Your task to perform on an android device: toggle pop-ups in chrome Image 0: 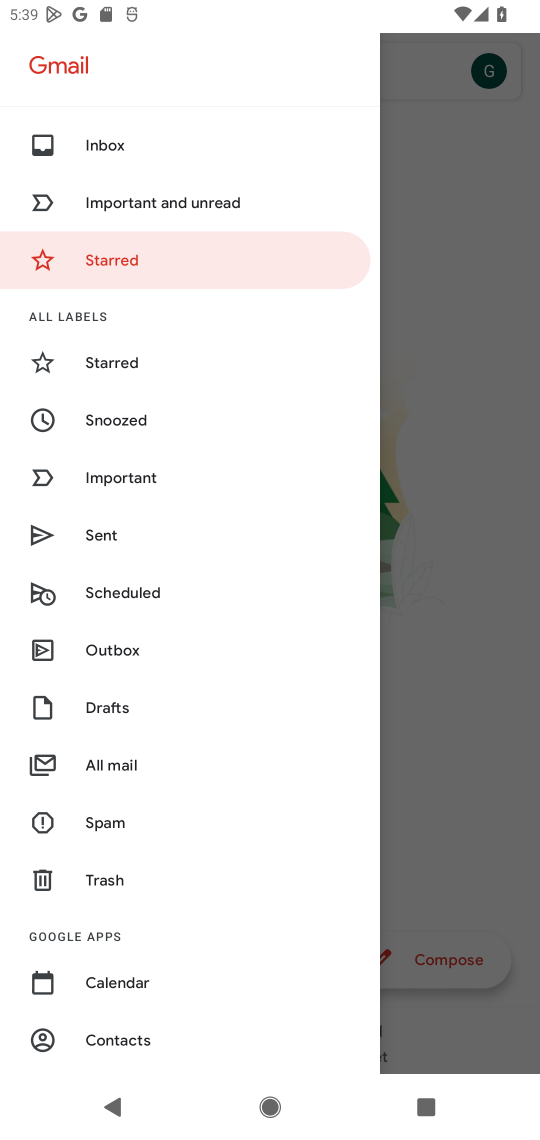
Step 0: press home button
Your task to perform on an android device: toggle pop-ups in chrome Image 1: 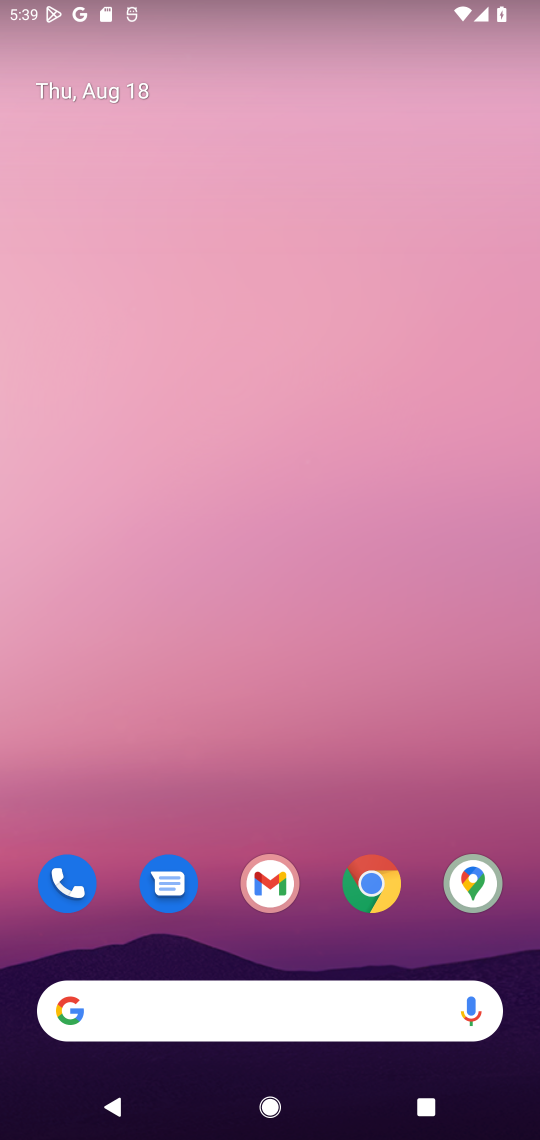
Step 1: drag from (307, 914) to (268, 69)
Your task to perform on an android device: toggle pop-ups in chrome Image 2: 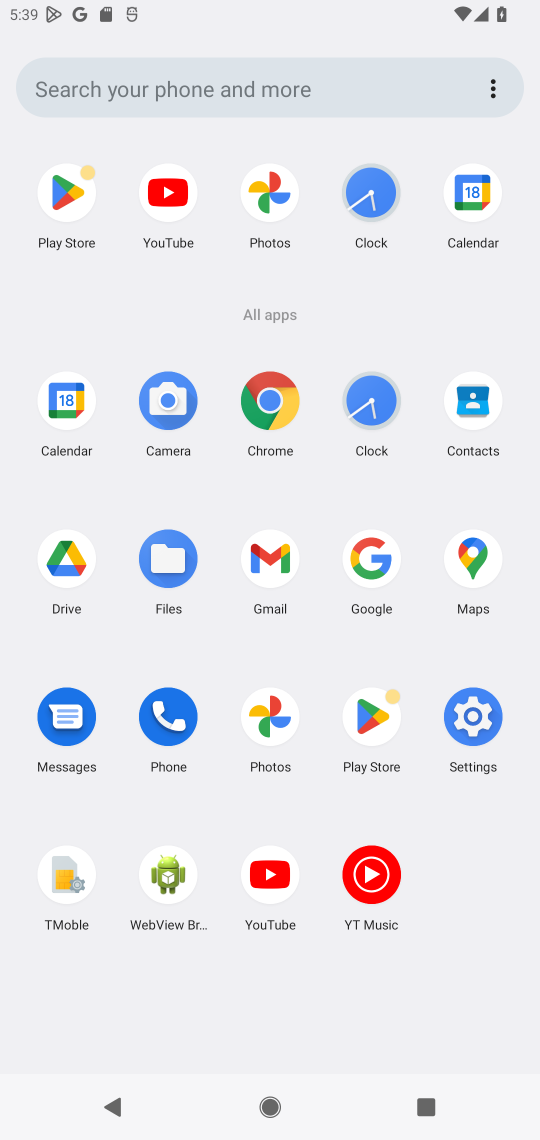
Step 2: click (257, 407)
Your task to perform on an android device: toggle pop-ups in chrome Image 3: 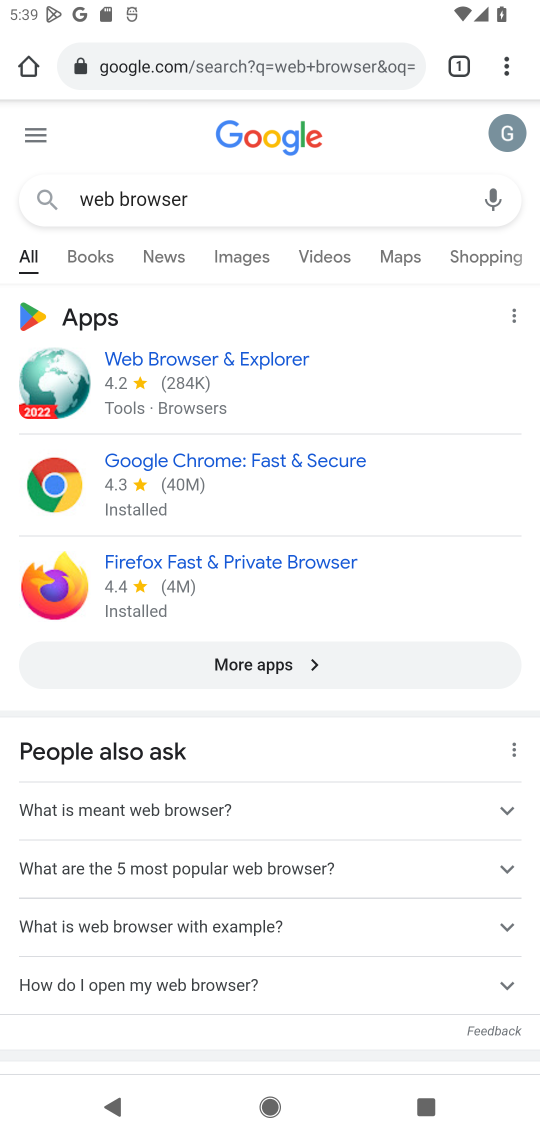
Step 3: drag from (499, 65) to (317, 776)
Your task to perform on an android device: toggle pop-ups in chrome Image 4: 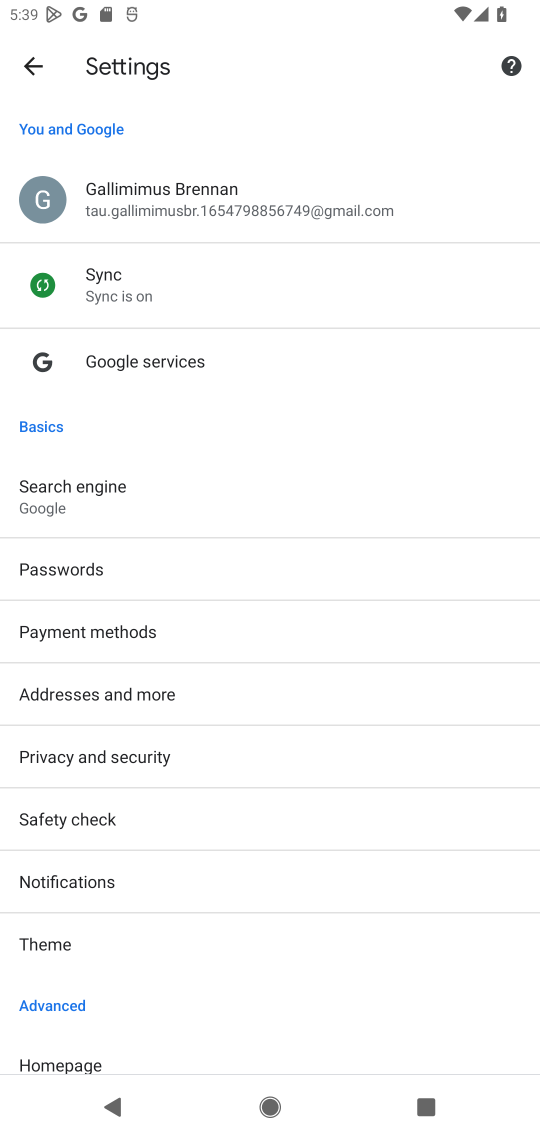
Step 4: drag from (172, 879) to (172, 327)
Your task to perform on an android device: toggle pop-ups in chrome Image 5: 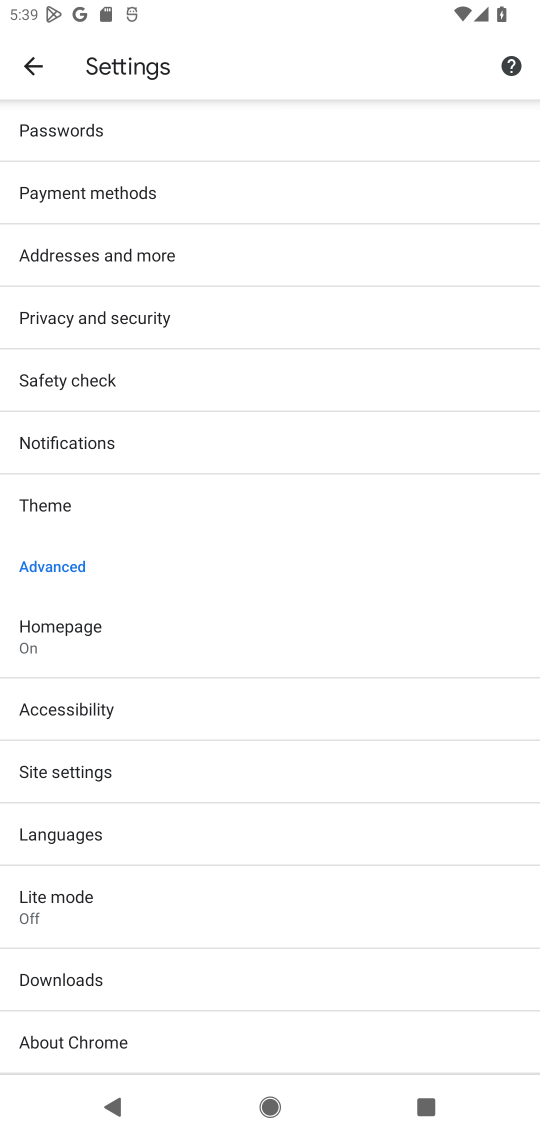
Step 5: click (81, 773)
Your task to perform on an android device: toggle pop-ups in chrome Image 6: 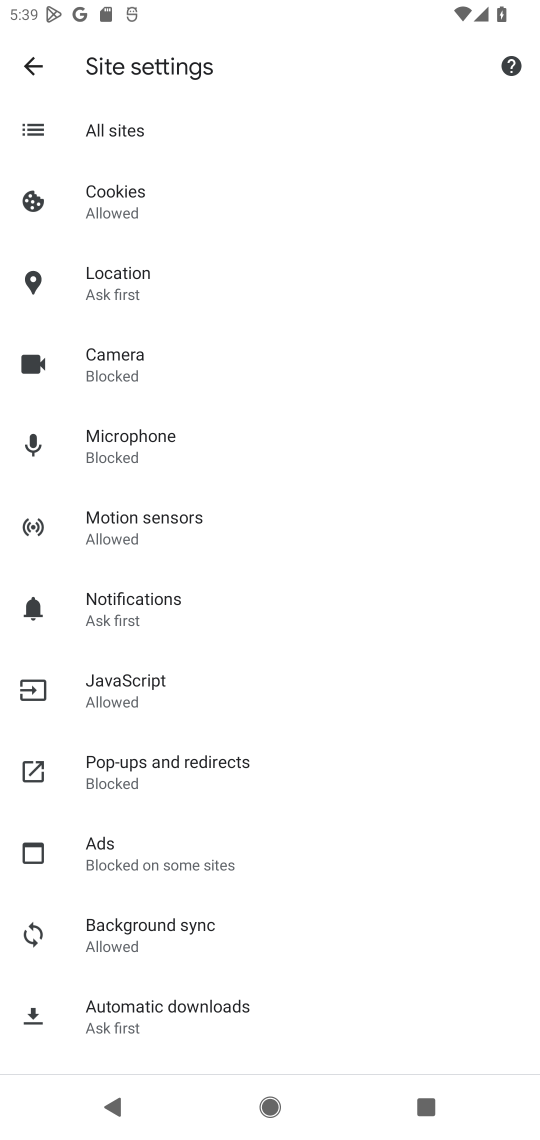
Step 6: click (137, 772)
Your task to perform on an android device: toggle pop-ups in chrome Image 7: 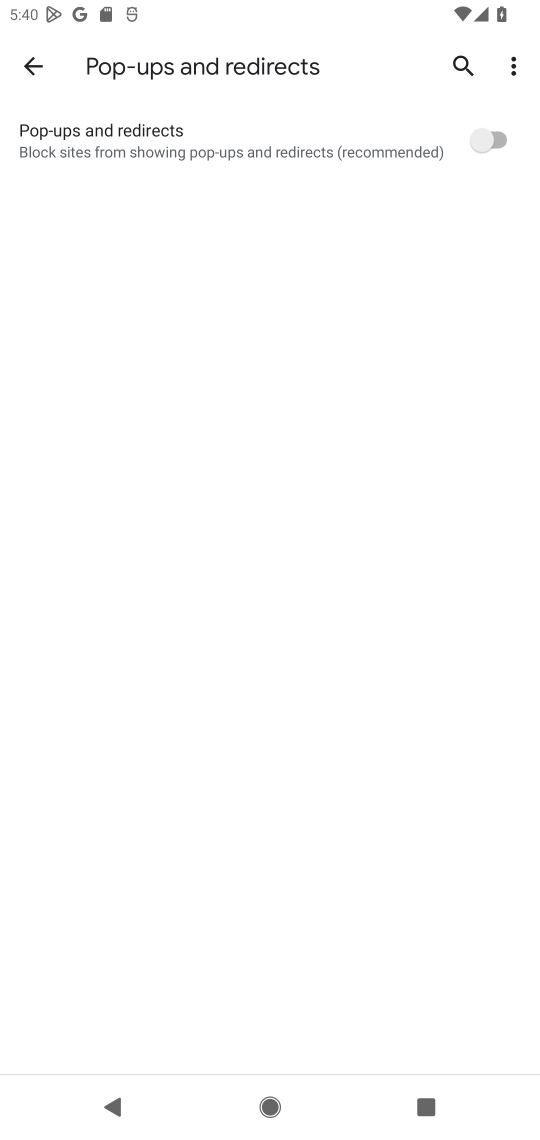
Step 7: click (429, 127)
Your task to perform on an android device: toggle pop-ups in chrome Image 8: 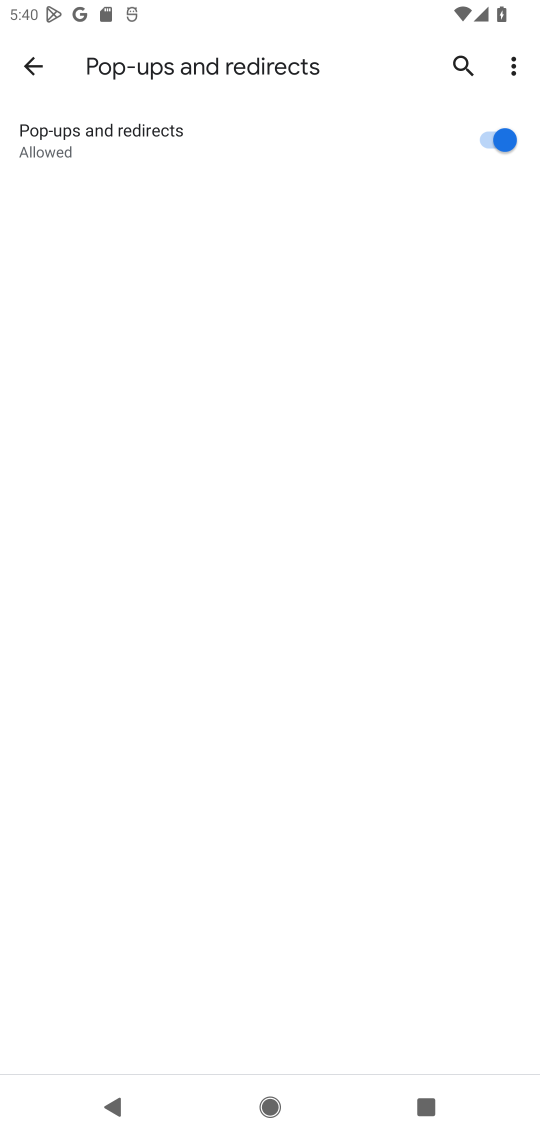
Step 8: task complete